Your task to perform on an android device: Open calendar and show me the fourth week of next month Image 0: 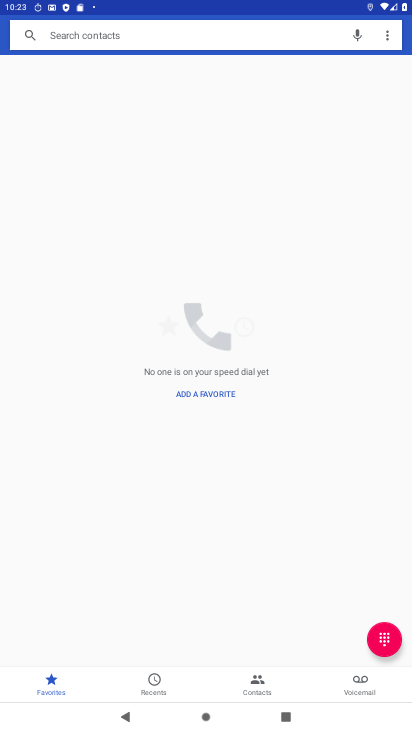
Step 0: press home button
Your task to perform on an android device: Open calendar and show me the fourth week of next month Image 1: 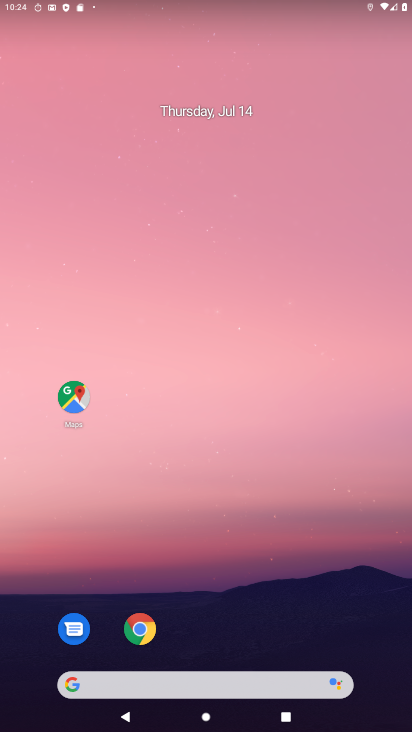
Step 1: drag from (311, 592) to (303, 54)
Your task to perform on an android device: Open calendar and show me the fourth week of next month Image 2: 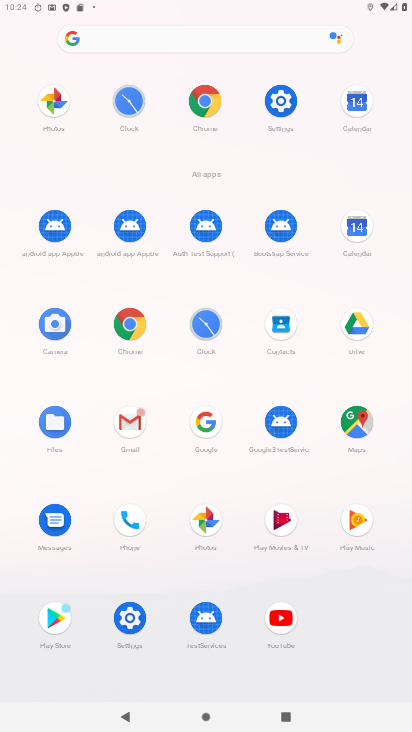
Step 2: click (357, 223)
Your task to perform on an android device: Open calendar and show me the fourth week of next month Image 3: 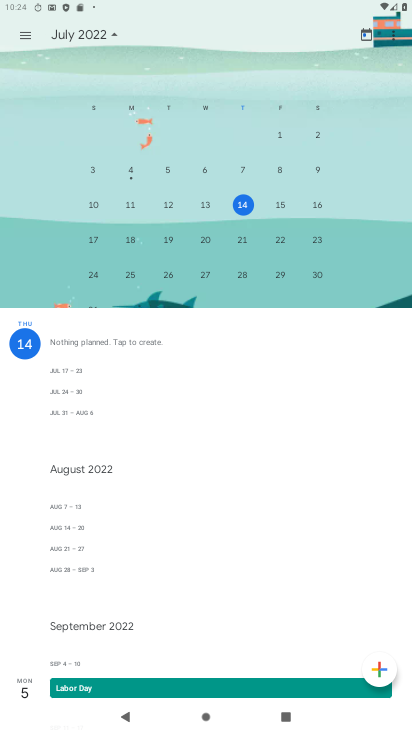
Step 3: drag from (352, 159) to (3, 144)
Your task to perform on an android device: Open calendar and show me the fourth week of next month Image 4: 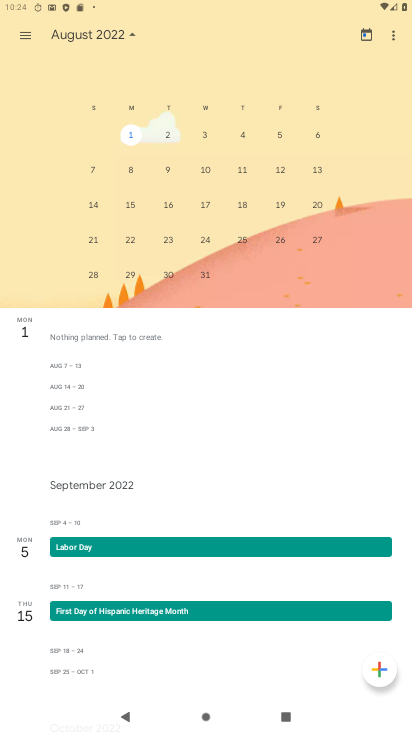
Step 4: click (91, 244)
Your task to perform on an android device: Open calendar and show me the fourth week of next month Image 5: 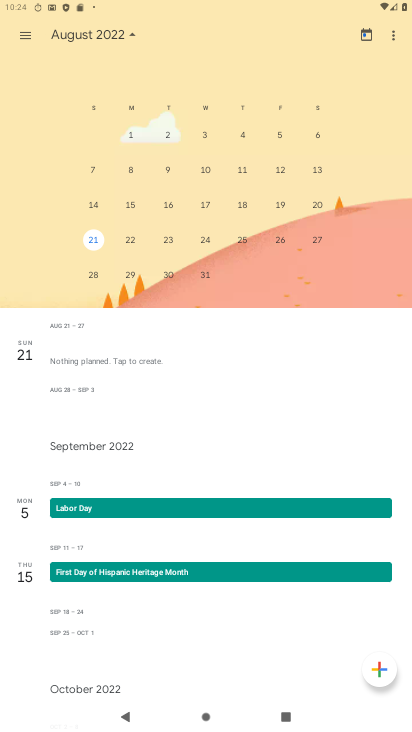
Step 5: task complete